Your task to perform on an android device: Open battery settings Image 0: 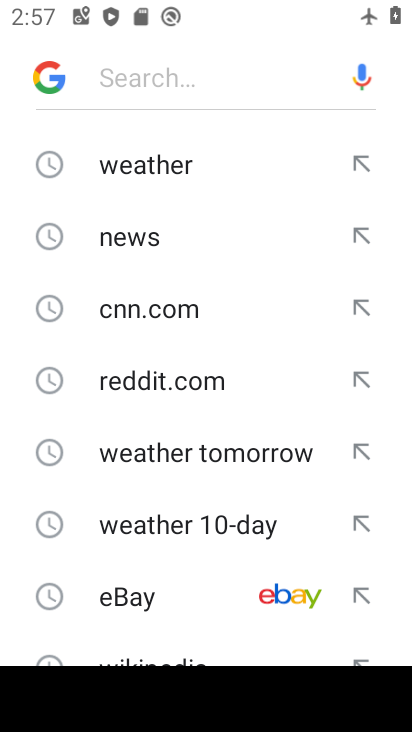
Step 0: press home button
Your task to perform on an android device: Open battery settings Image 1: 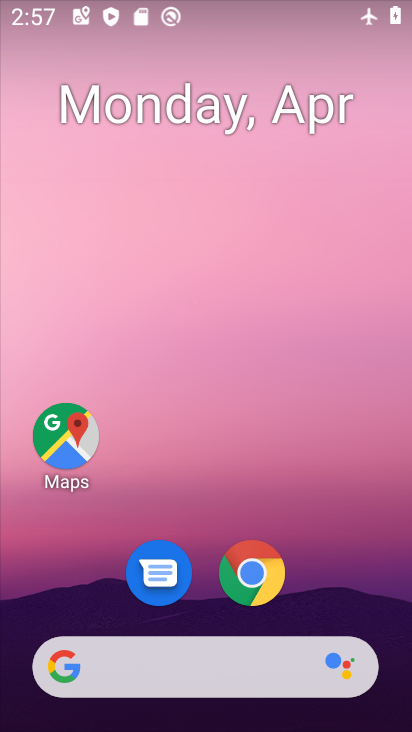
Step 1: drag from (351, 568) to (343, 86)
Your task to perform on an android device: Open battery settings Image 2: 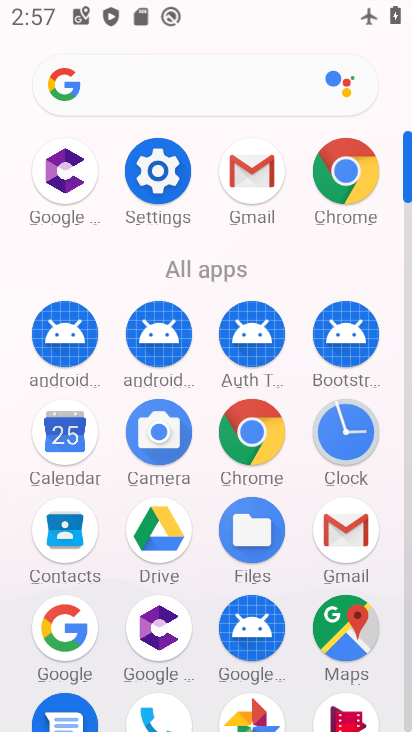
Step 2: click (162, 178)
Your task to perform on an android device: Open battery settings Image 3: 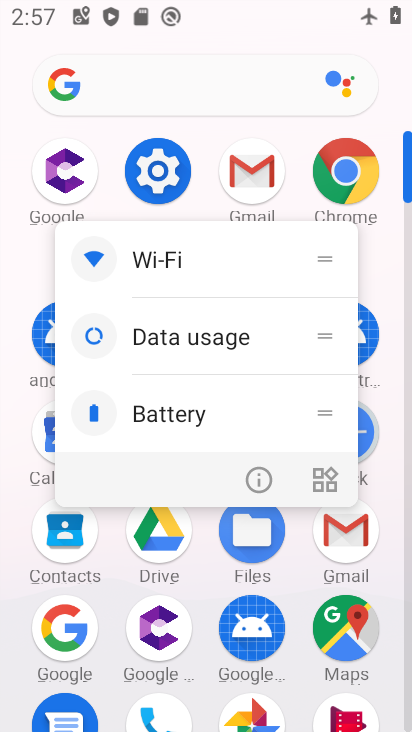
Step 3: click (162, 178)
Your task to perform on an android device: Open battery settings Image 4: 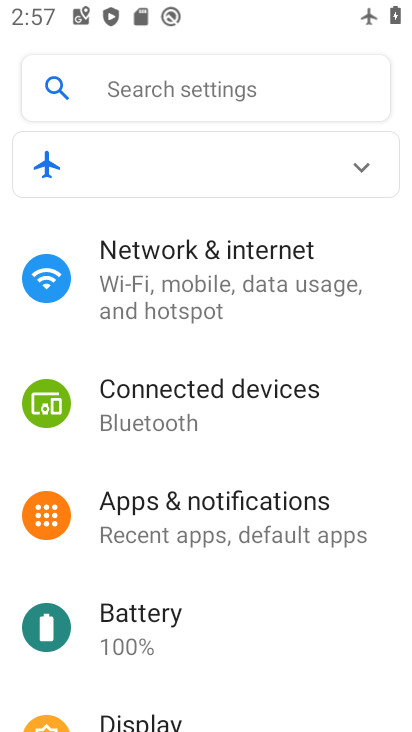
Step 4: drag from (353, 599) to (346, 431)
Your task to perform on an android device: Open battery settings Image 5: 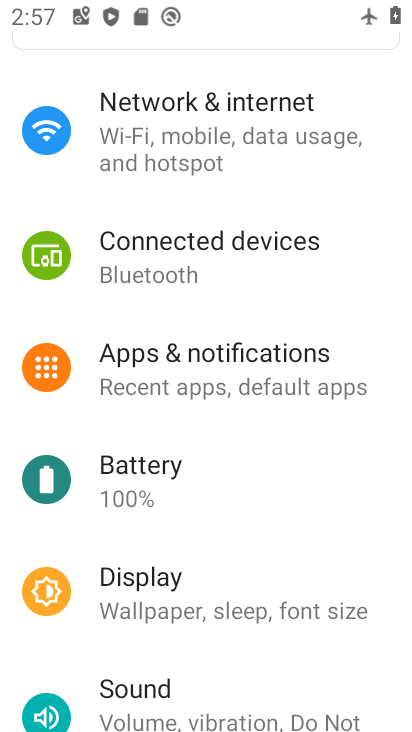
Step 5: drag from (361, 655) to (367, 436)
Your task to perform on an android device: Open battery settings Image 6: 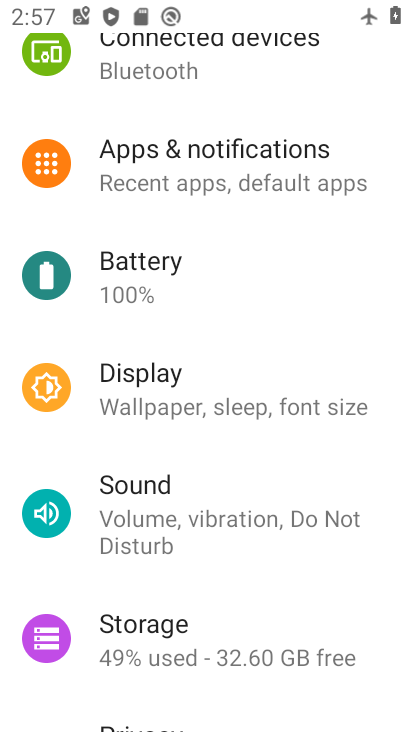
Step 6: drag from (358, 617) to (388, 385)
Your task to perform on an android device: Open battery settings Image 7: 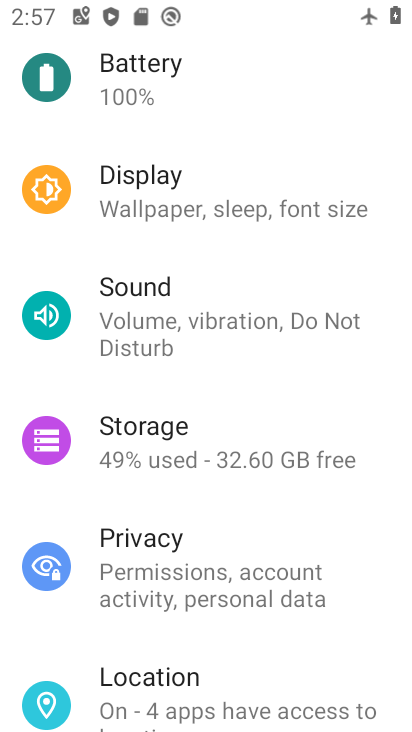
Step 7: drag from (354, 613) to (382, 422)
Your task to perform on an android device: Open battery settings Image 8: 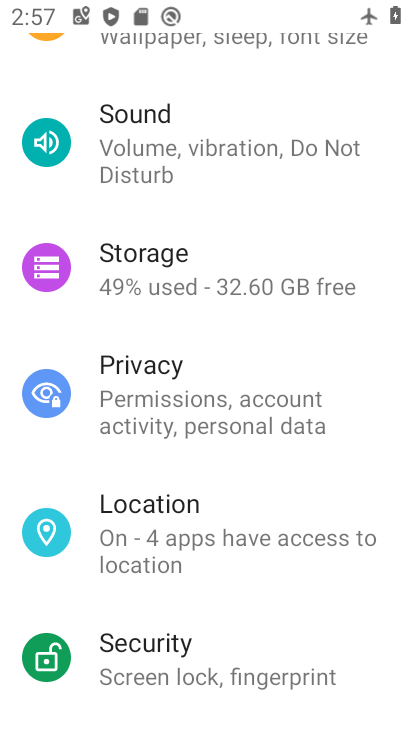
Step 8: drag from (396, 674) to (363, 419)
Your task to perform on an android device: Open battery settings Image 9: 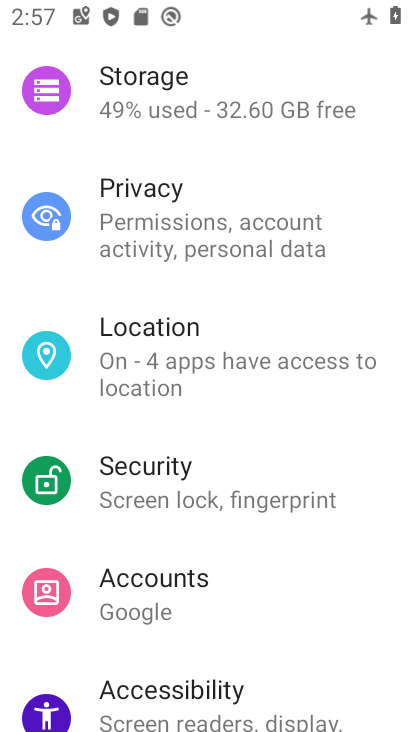
Step 9: drag from (366, 239) to (336, 442)
Your task to perform on an android device: Open battery settings Image 10: 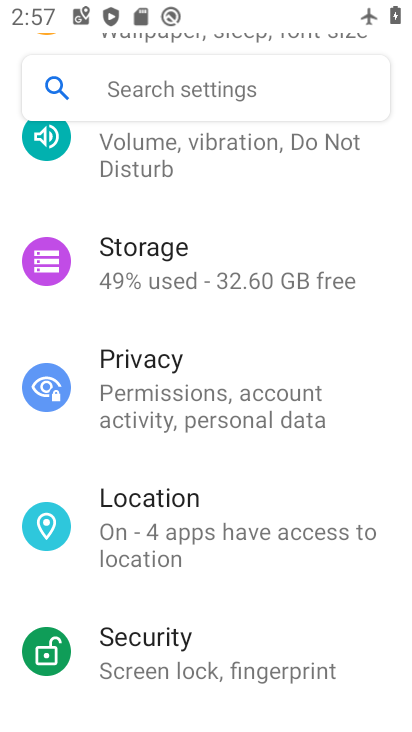
Step 10: drag from (377, 268) to (364, 425)
Your task to perform on an android device: Open battery settings Image 11: 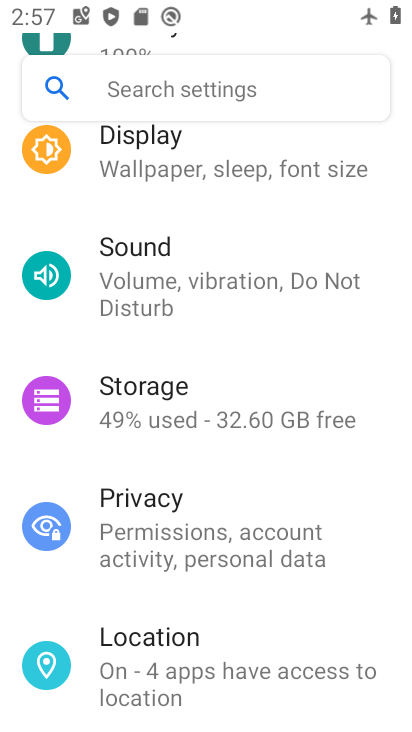
Step 11: drag from (376, 221) to (378, 451)
Your task to perform on an android device: Open battery settings Image 12: 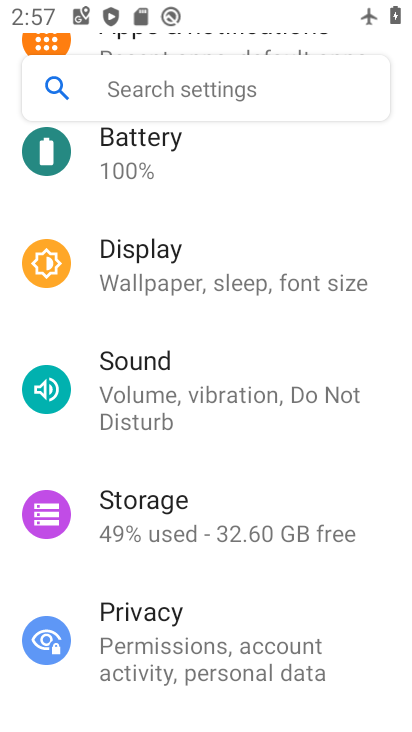
Step 12: click (139, 154)
Your task to perform on an android device: Open battery settings Image 13: 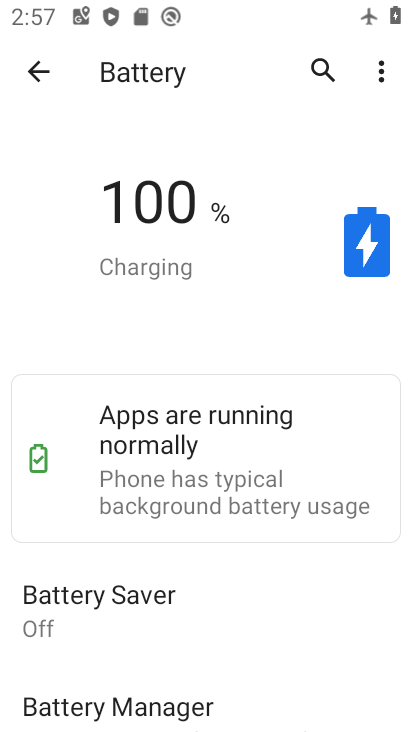
Step 13: task complete